Your task to perform on an android device: Open Maps and search for coffee Image 0: 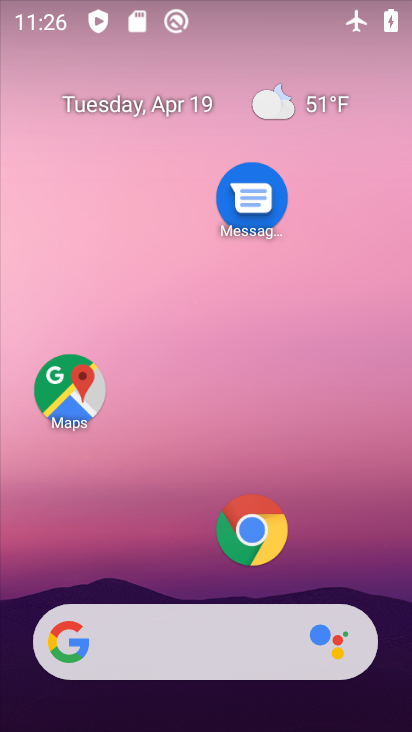
Step 0: drag from (118, 591) to (252, 87)
Your task to perform on an android device: Open Maps and search for coffee Image 1: 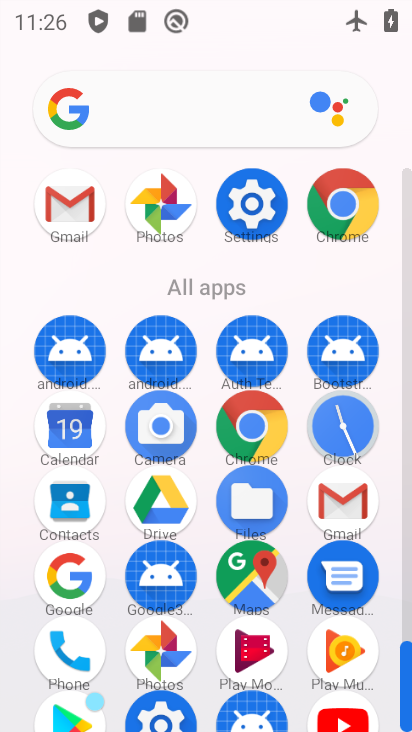
Step 1: click (259, 578)
Your task to perform on an android device: Open Maps and search for coffee Image 2: 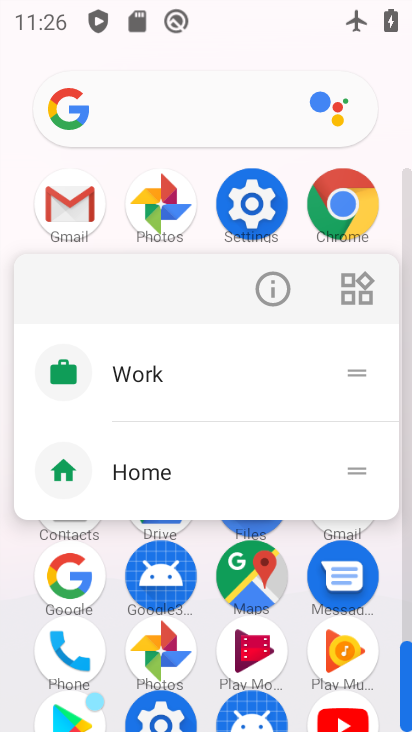
Step 2: click (273, 580)
Your task to perform on an android device: Open Maps and search for coffee Image 3: 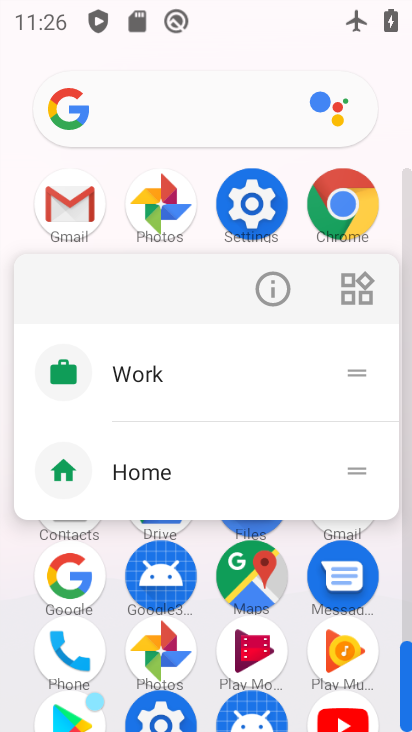
Step 3: click (273, 580)
Your task to perform on an android device: Open Maps and search for coffee Image 4: 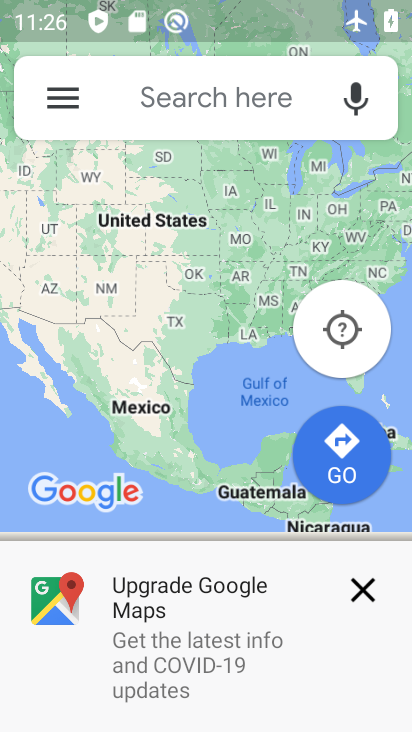
Step 4: click (195, 106)
Your task to perform on an android device: Open Maps and search for coffee Image 5: 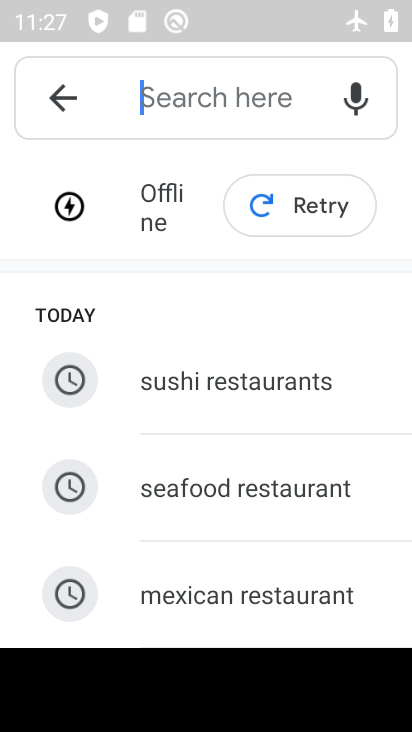
Step 5: type "coffee "
Your task to perform on an android device: Open Maps and search for coffee Image 6: 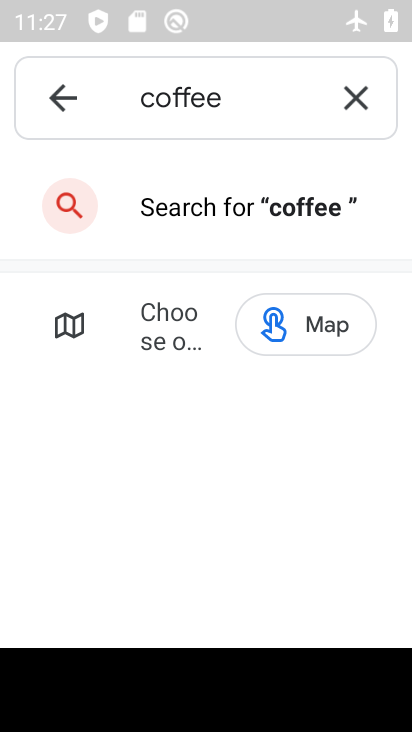
Step 6: click (303, 227)
Your task to perform on an android device: Open Maps and search for coffee Image 7: 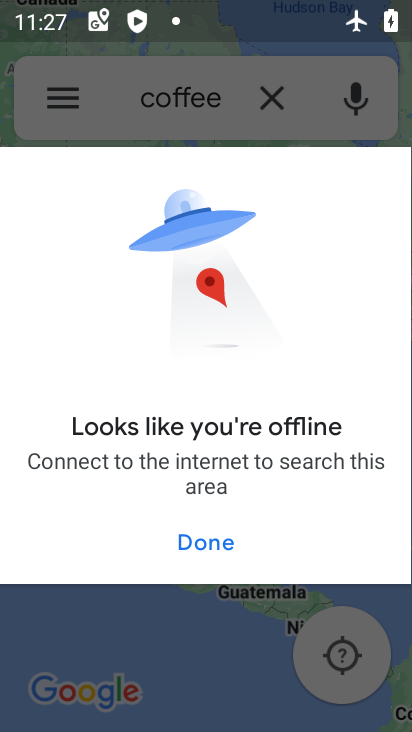
Step 7: click (220, 538)
Your task to perform on an android device: Open Maps and search for coffee Image 8: 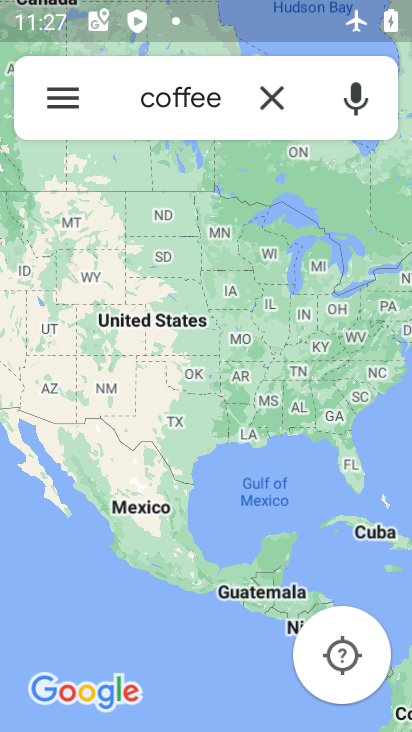
Step 8: task complete